Your task to perform on an android device: What's the news in Paraguay? Image 0: 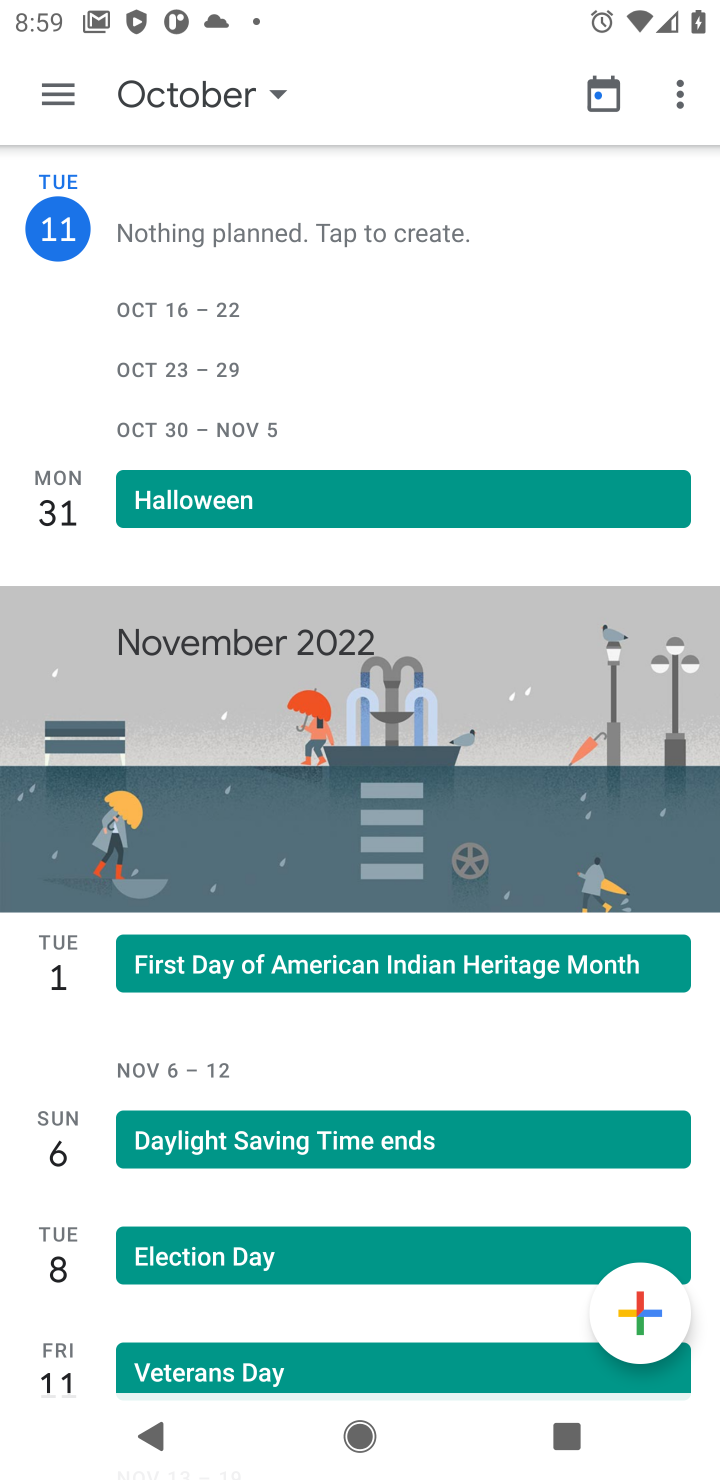
Step 0: press home button
Your task to perform on an android device: What's the news in Paraguay? Image 1: 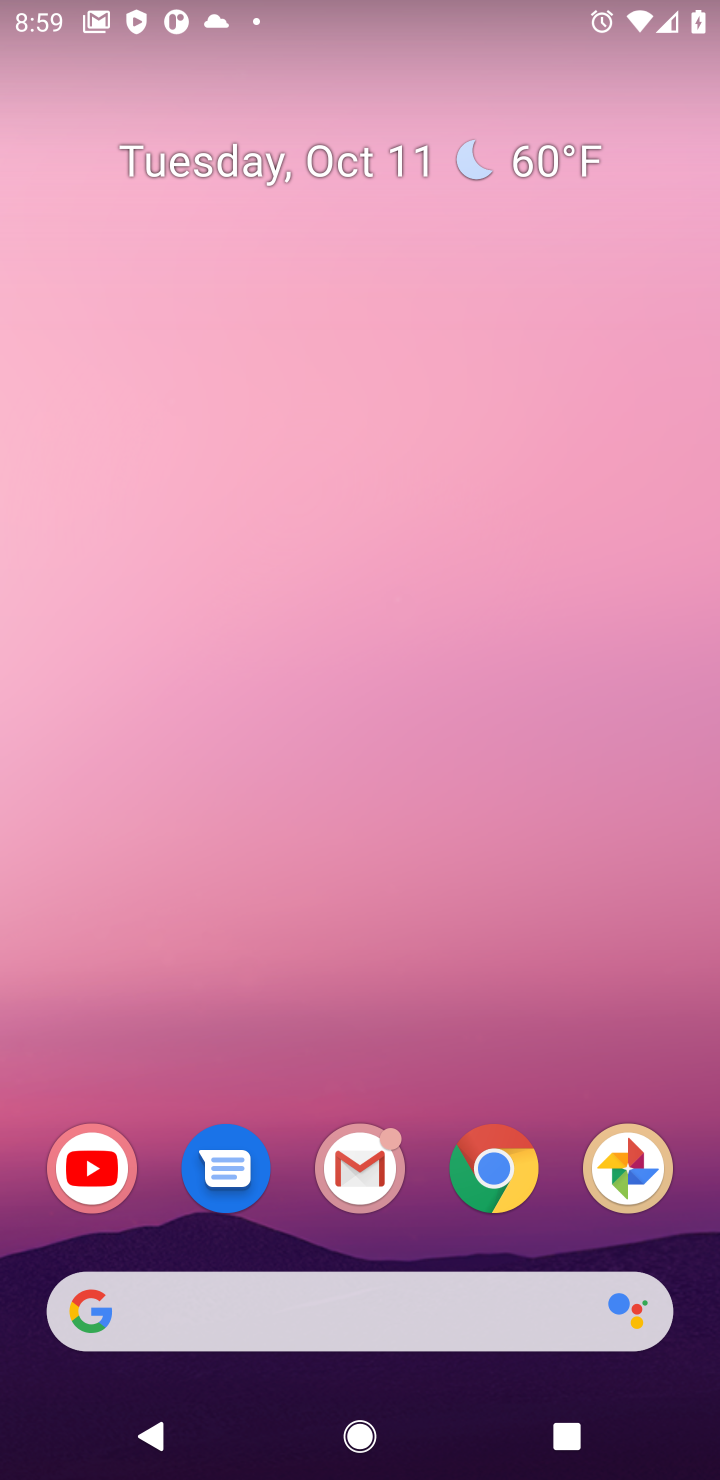
Step 1: click (487, 1173)
Your task to perform on an android device: What's the news in Paraguay? Image 2: 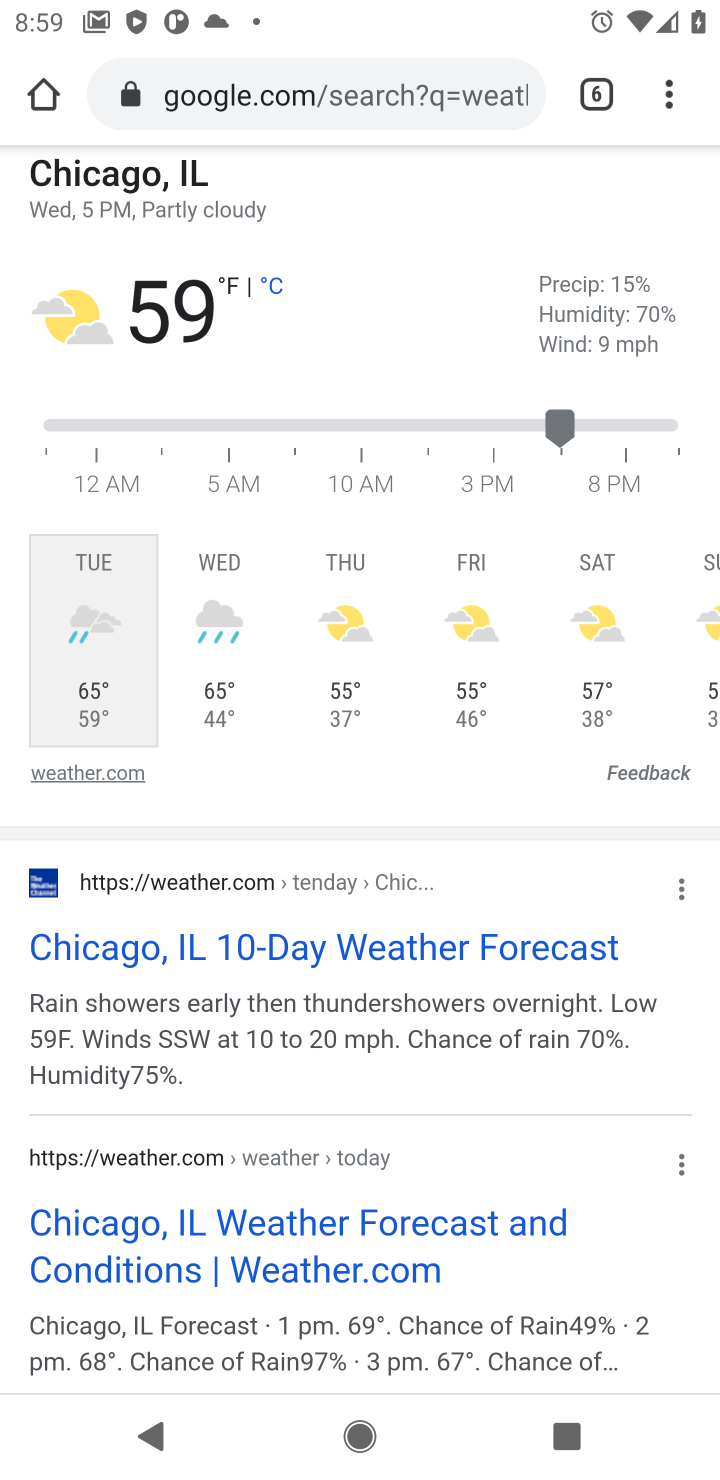
Step 2: click (409, 97)
Your task to perform on an android device: What's the news in Paraguay? Image 3: 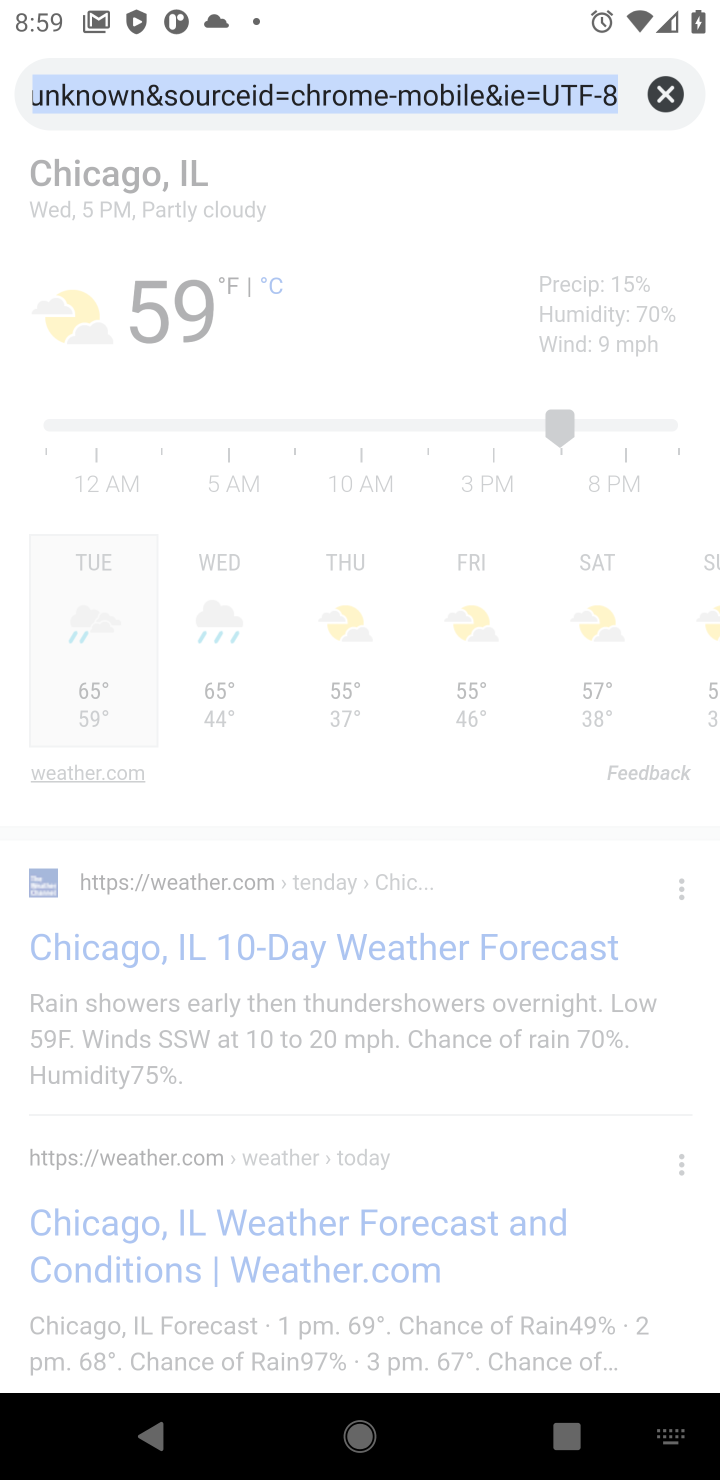
Step 3: click (668, 102)
Your task to perform on an android device: What's the news in Paraguay? Image 4: 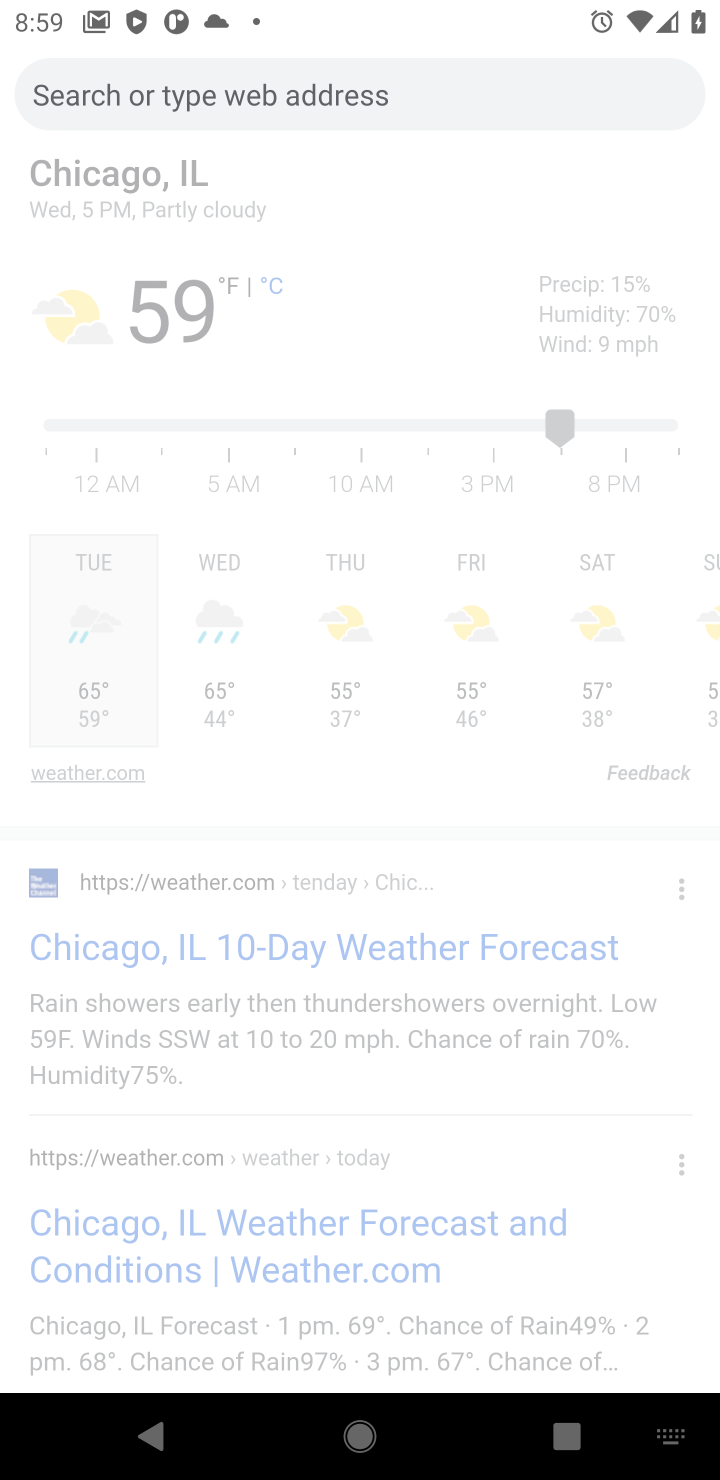
Step 4: type "news in paraguay"
Your task to perform on an android device: What's the news in Paraguay? Image 5: 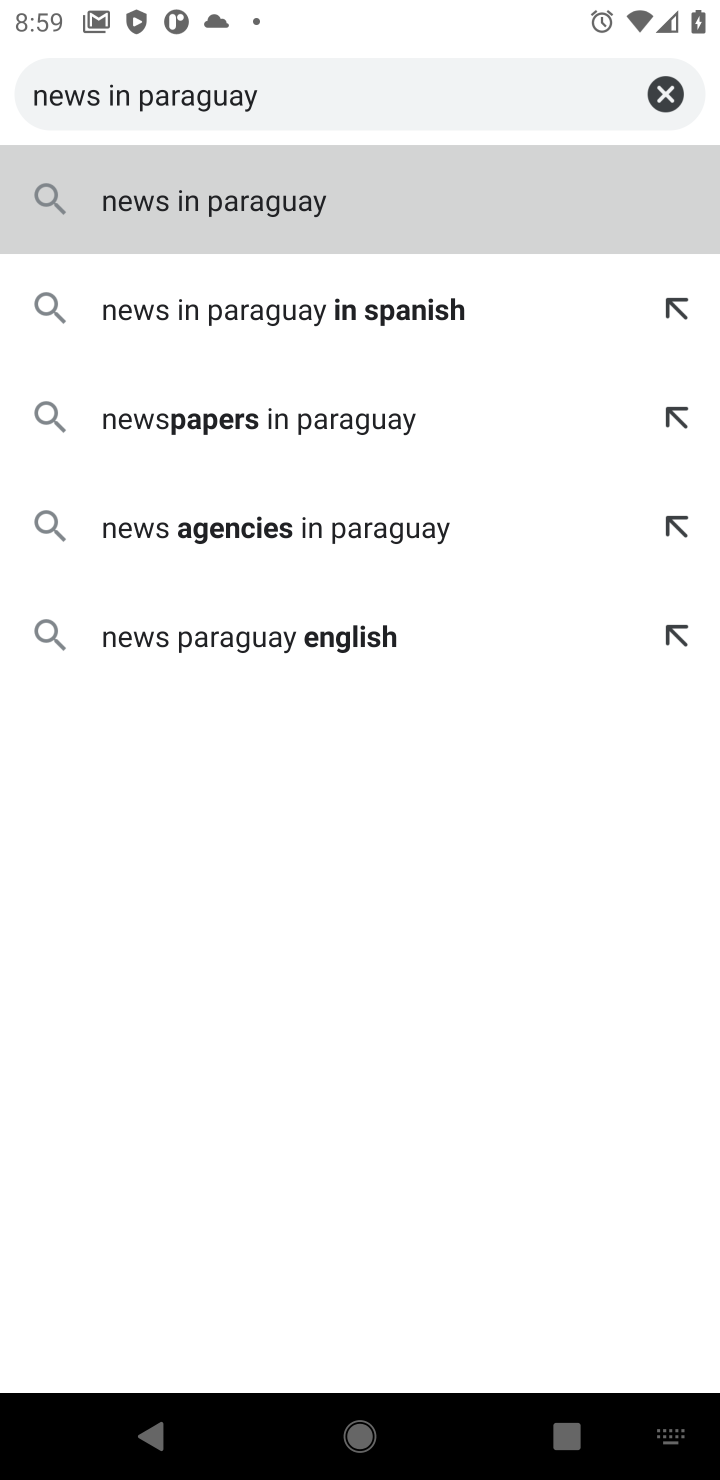
Step 5: click (277, 202)
Your task to perform on an android device: What's the news in Paraguay? Image 6: 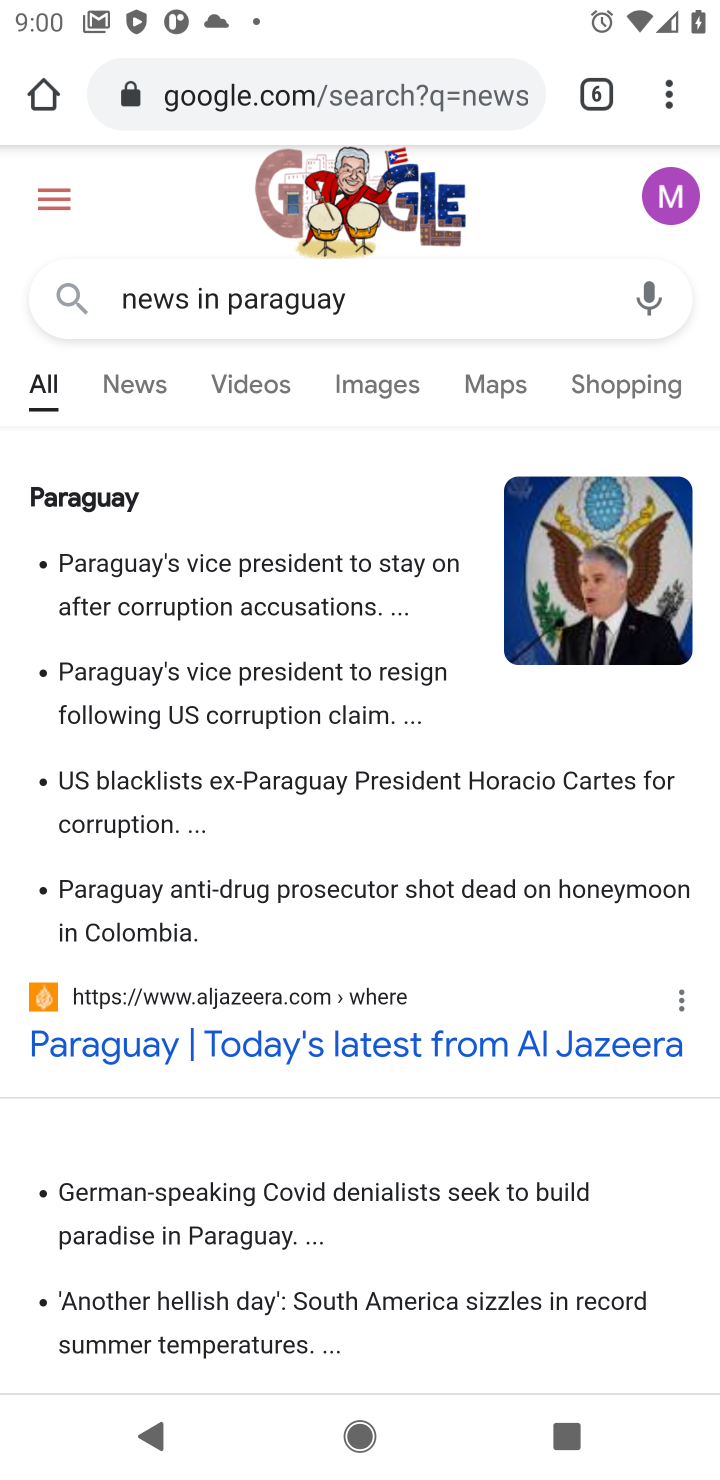
Step 6: drag from (302, 820) to (308, 531)
Your task to perform on an android device: What's the news in Paraguay? Image 7: 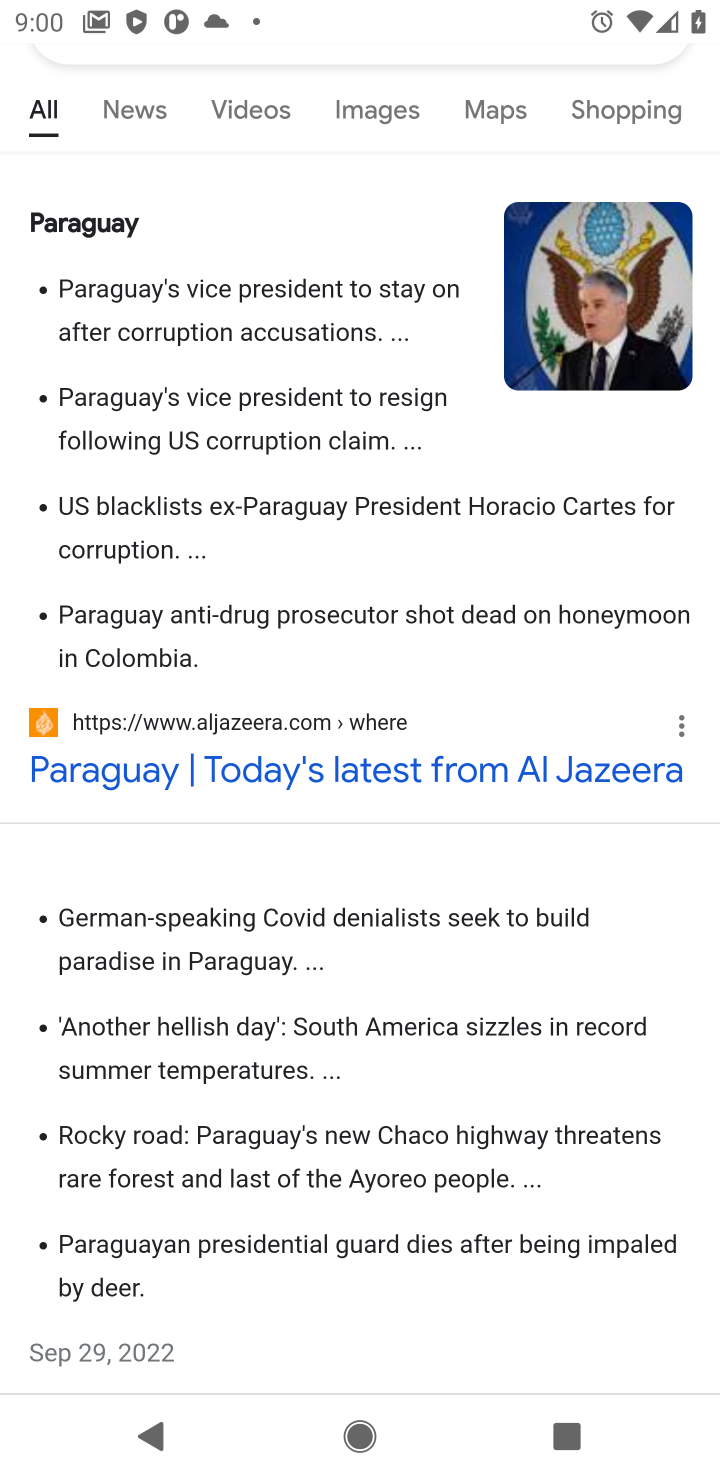
Step 7: drag from (228, 1014) to (298, 500)
Your task to perform on an android device: What's the news in Paraguay? Image 8: 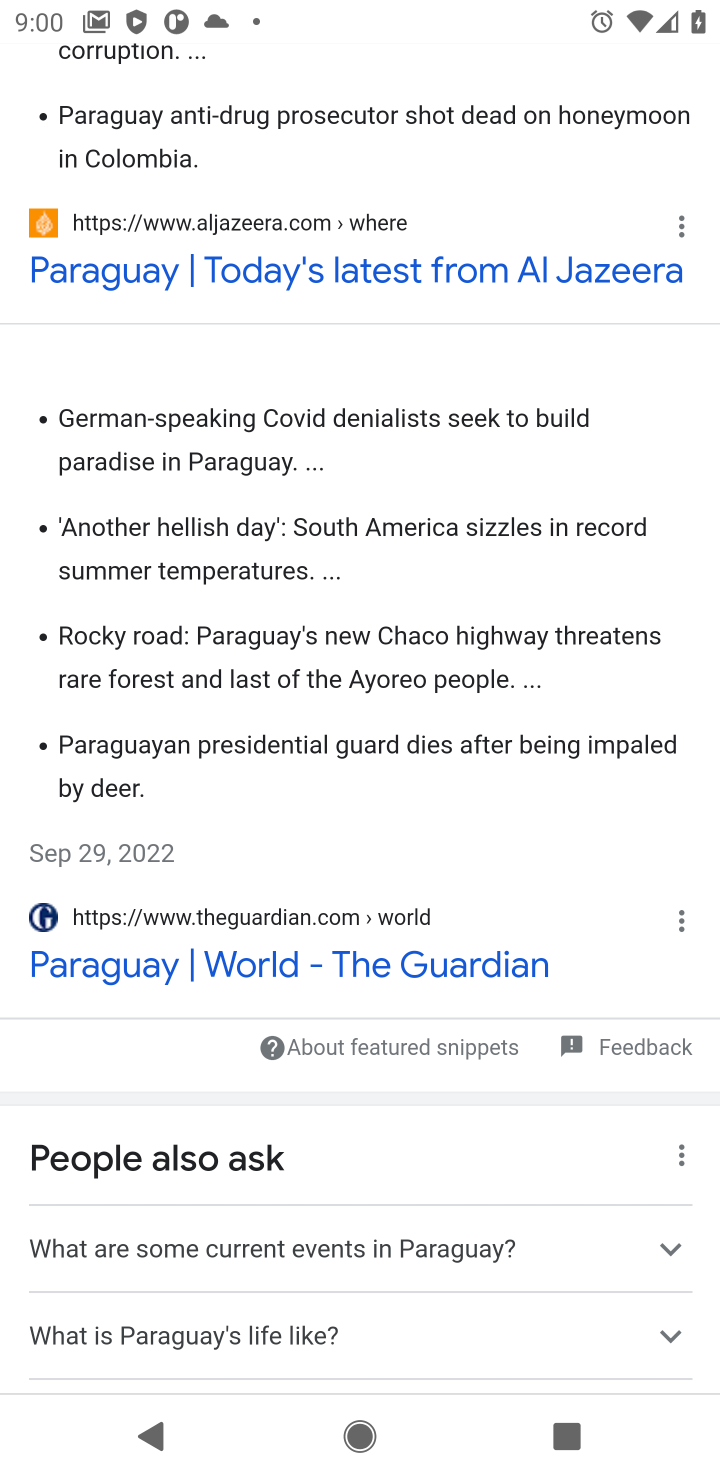
Step 8: drag from (309, 733) to (395, 300)
Your task to perform on an android device: What's the news in Paraguay? Image 9: 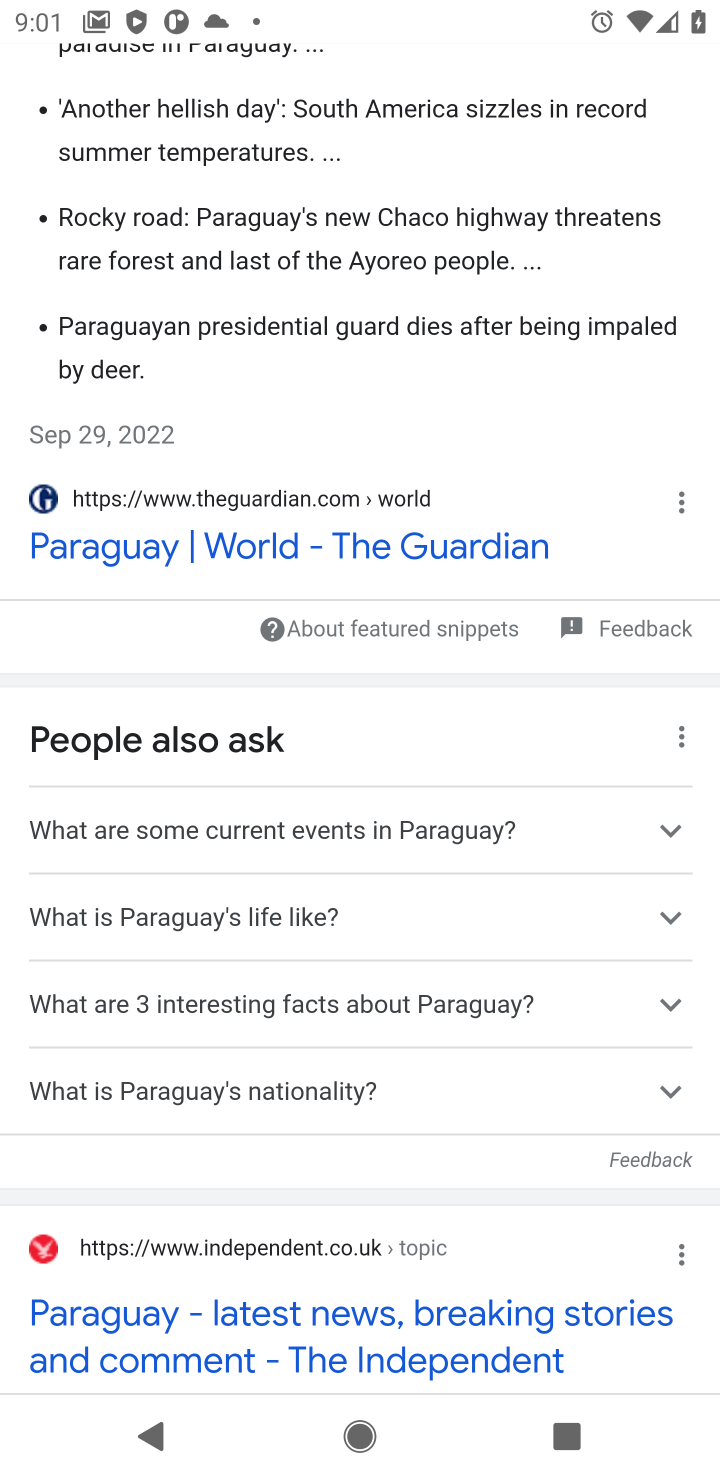
Step 9: drag from (255, 1221) to (393, 336)
Your task to perform on an android device: What's the news in Paraguay? Image 10: 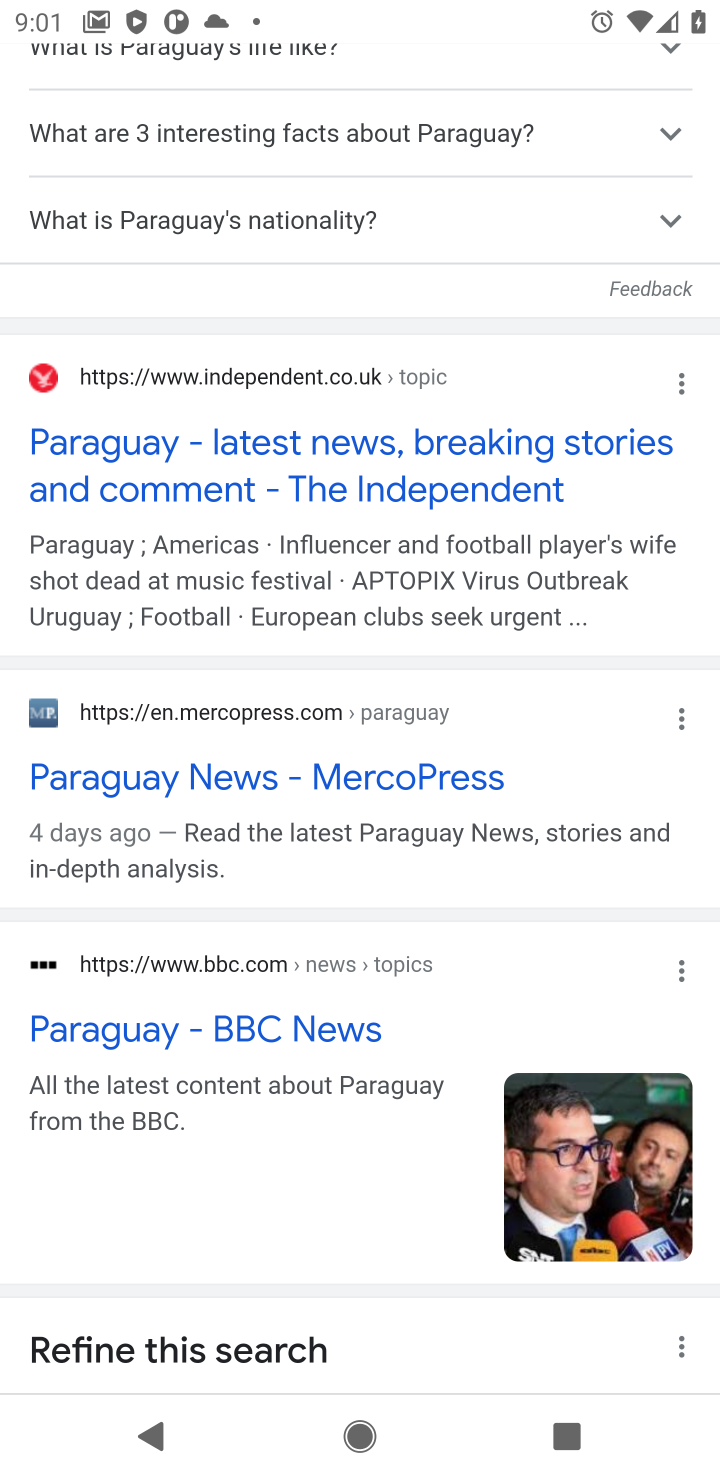
Step 10: click (327, 436)
Your task to perform on an android device: What's the news in Paraguay? Image 11: 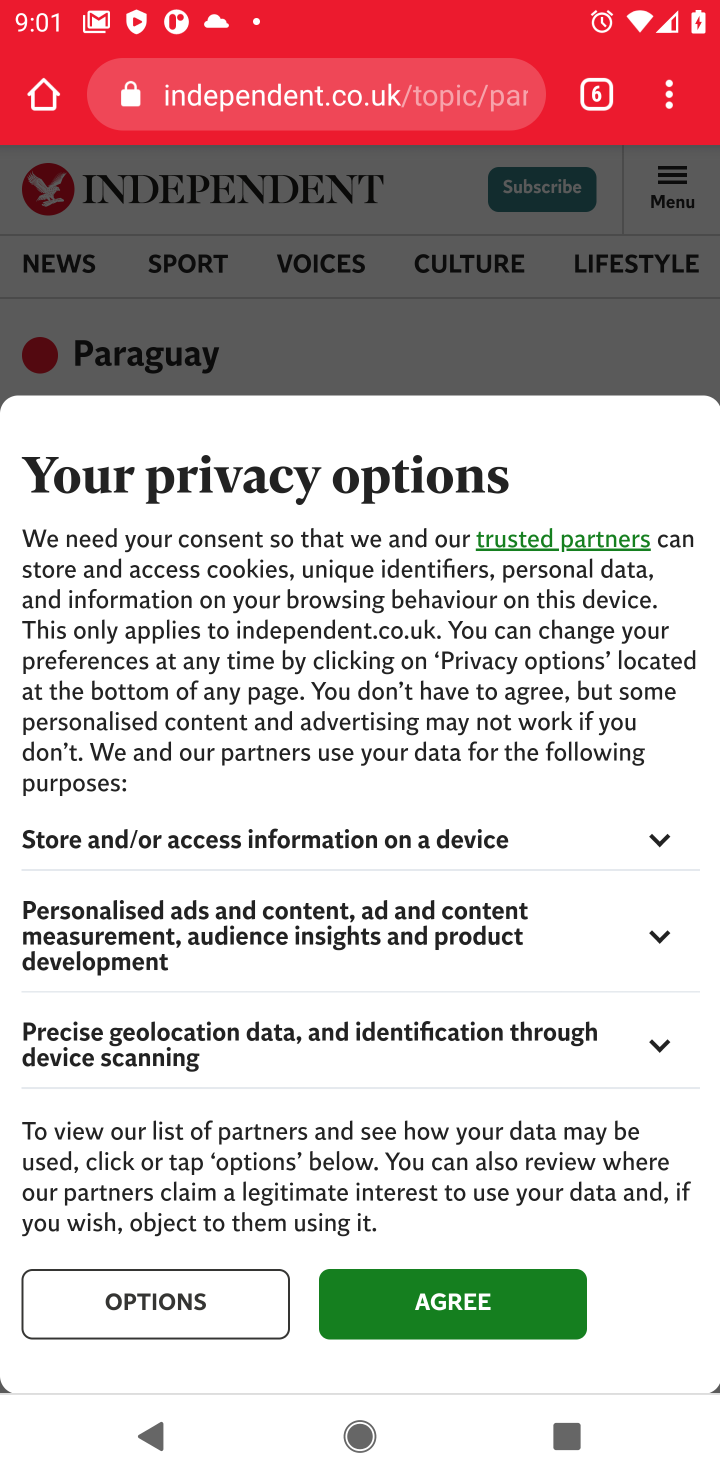
Step 11: click (418, 1324)
Your task to perform on an android device: What's the news in Paraguay? Image 12: 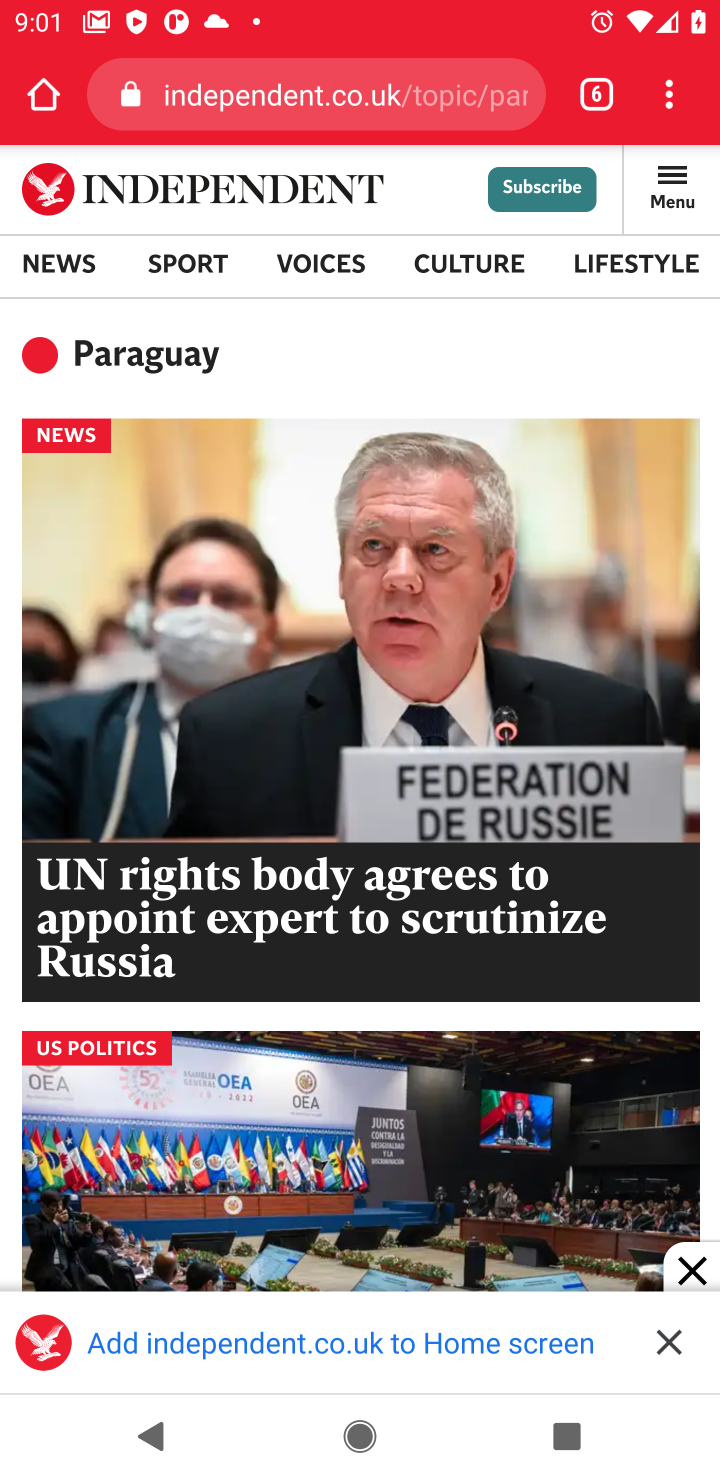
Step 12: click (676, 1336)
Your task to perform on an android device: What's the news in Paraguay? Image 13: 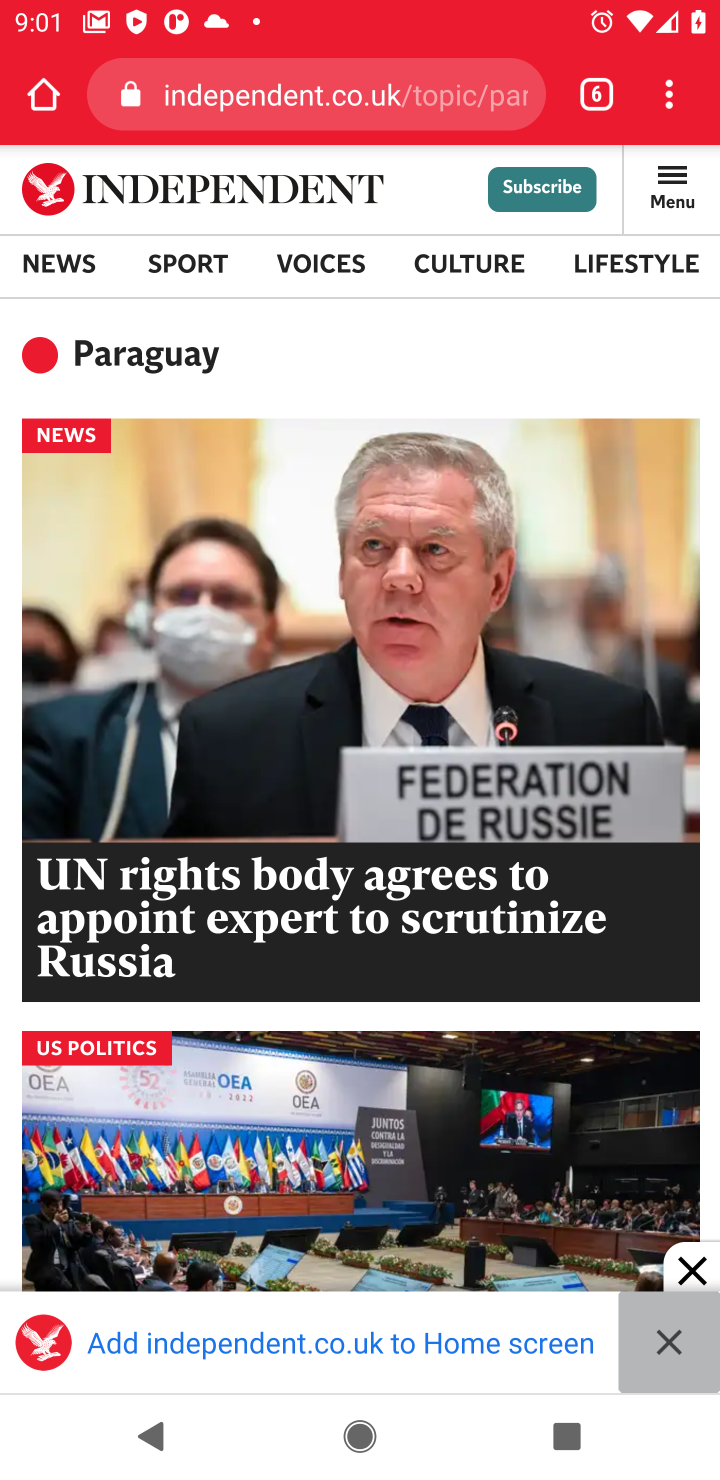
Step 13: drag from (313, 1049) to (443, 270)
Your task to perform on an android device: What's the news in Paraguay? Image 14: 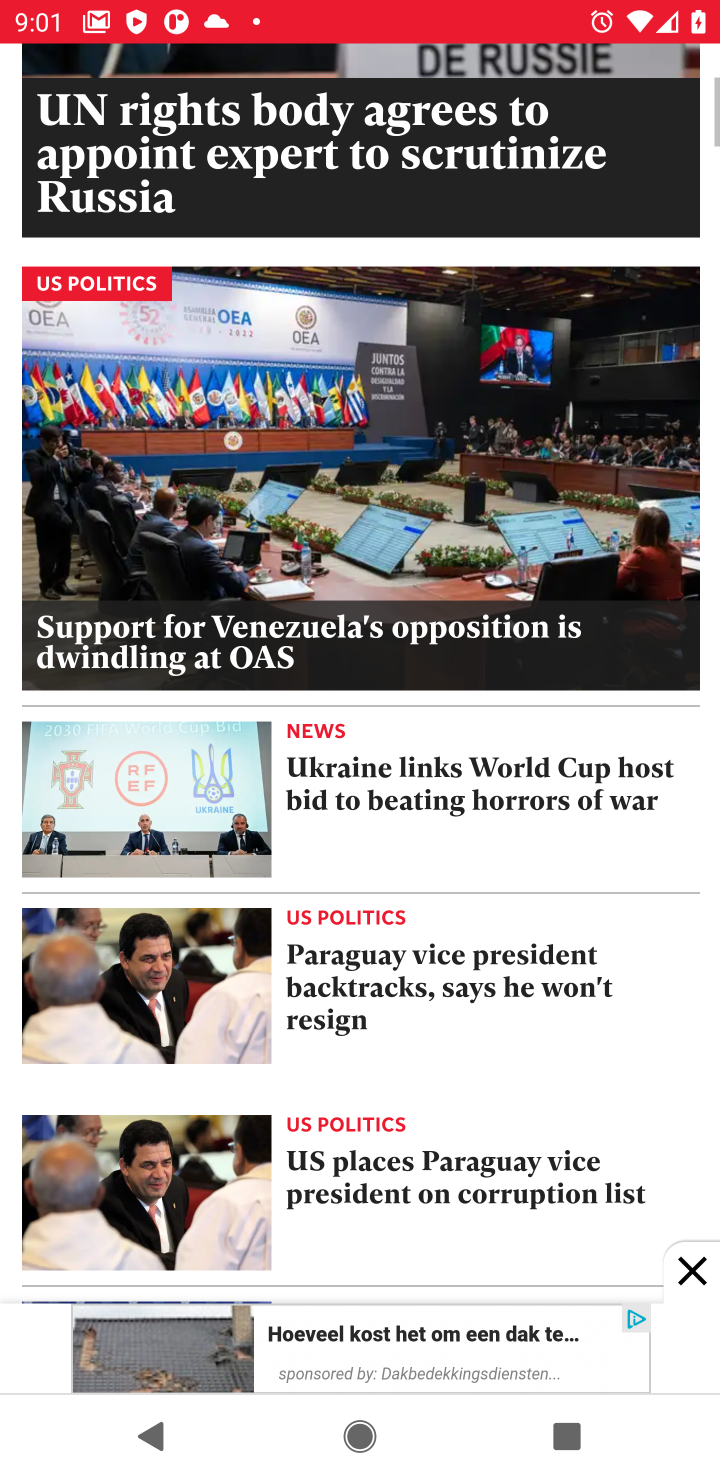
Step 14: drag from (308, 1072) to (400, 539)
Your task to perform on an android device: What's the news in Paraguay? Image 15: 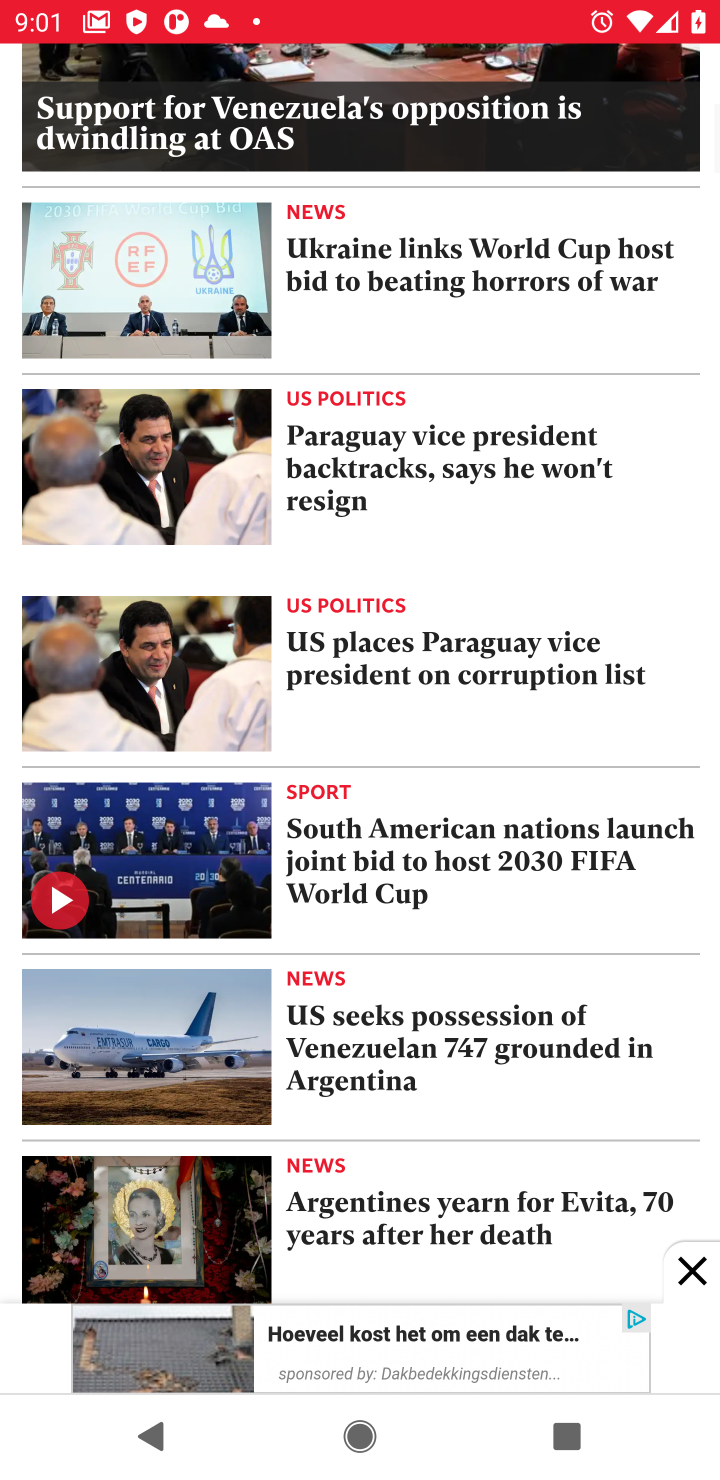
Step 15: click (422, 754)
Your task to perform on an android device: What's the news in Paraguay? Image 16: 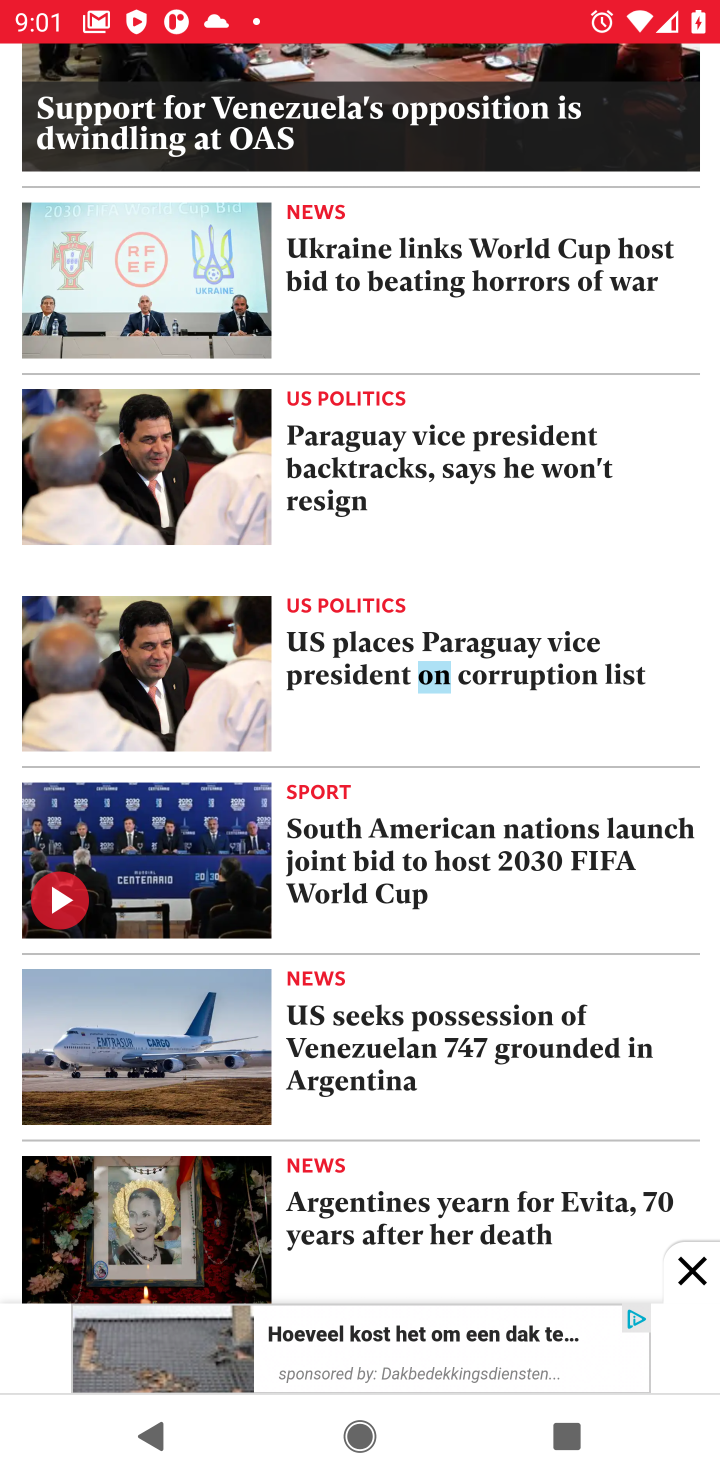
Step 16: click (401, 649)
Your task to perform on an android device: What's the news in Paraguay? Image 17: 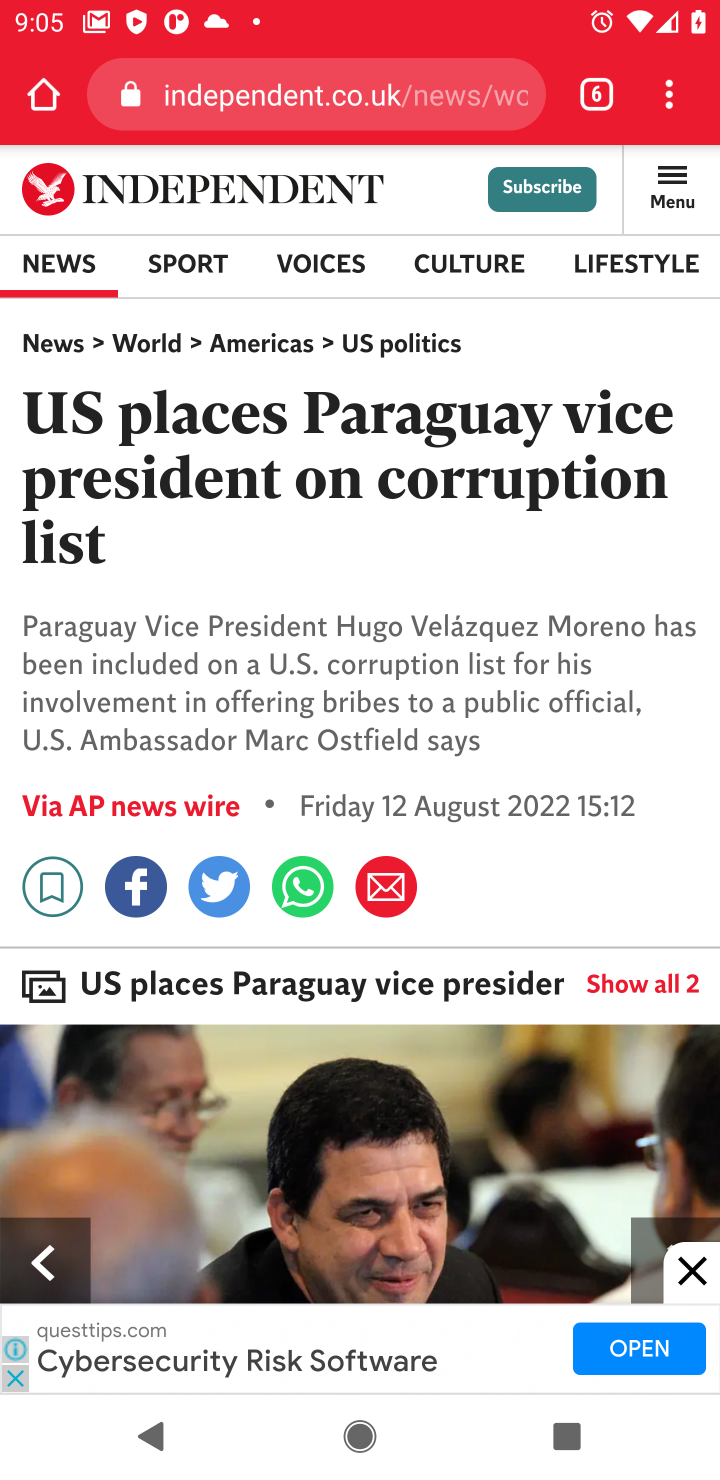
Step 17: task complete